Your task to perform on an android device: Turn off the flashlight Image 0: 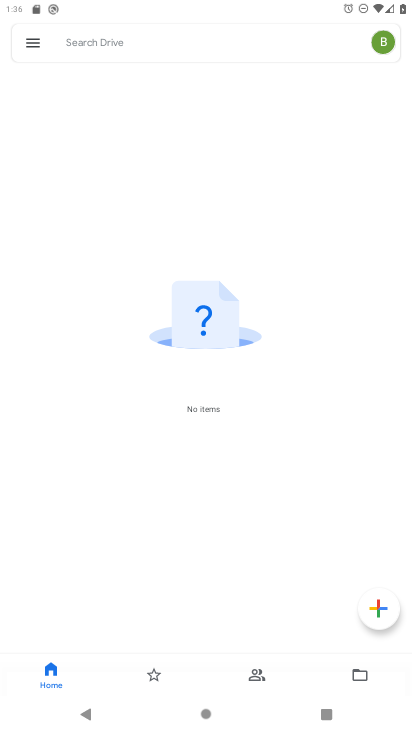
Step 0: press home button
Your task to perform on an android device: Turn off the flashlight Image 1: 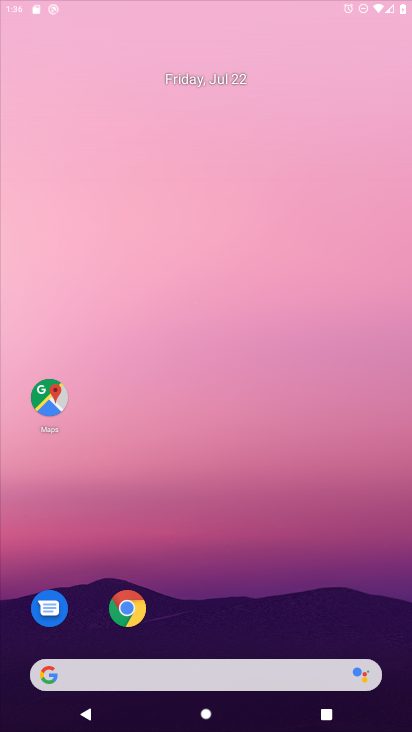
Step 1: drag from (395, 655) to (209, 0)
Your task to perform on an android device: Turn off the flashlight Image 2: 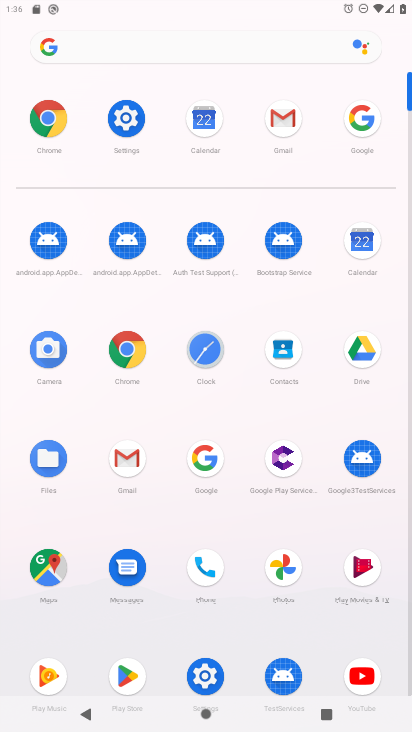
Step 2: click (126, 121)
Your task to perform on an android device: Turn off the flashlight Image 3: 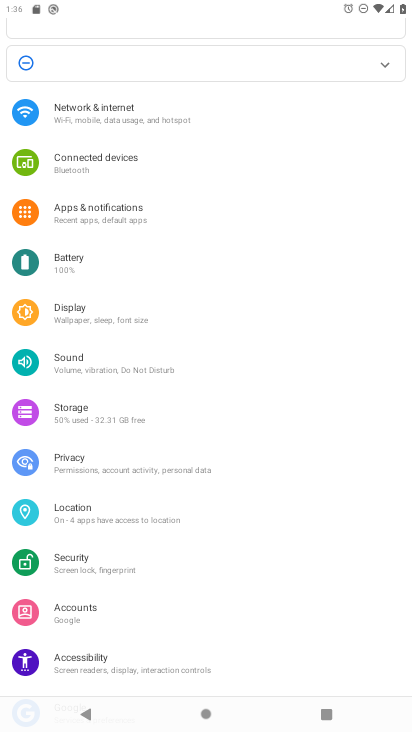
Step 3: task complete